Your task to perform on an android device: Search for Italian restaurants on Maps Image 0: 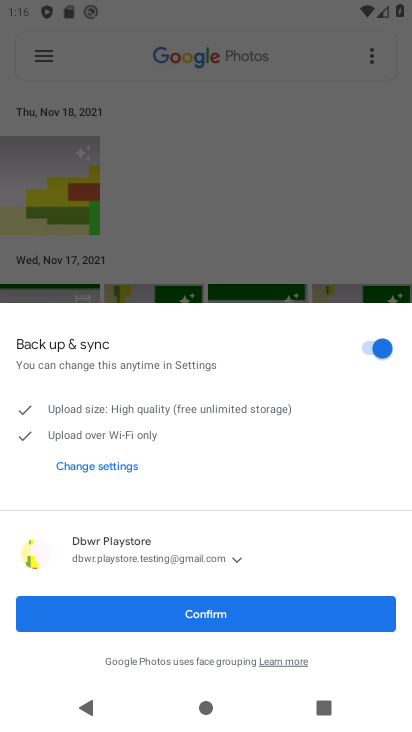
Step 0: press home button
Your task to perform on an android device: Search for Italian restaurants on Maps Image 1: 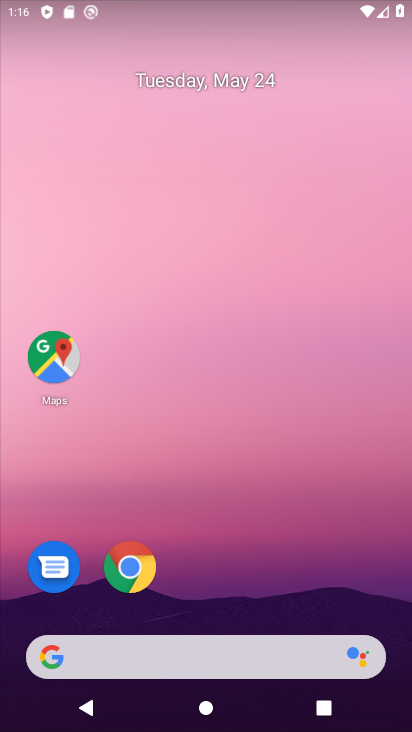
Step 1: click (63, 361)
Your task to perform on an android device: Search for Italian restaurants on Maps Image 2: 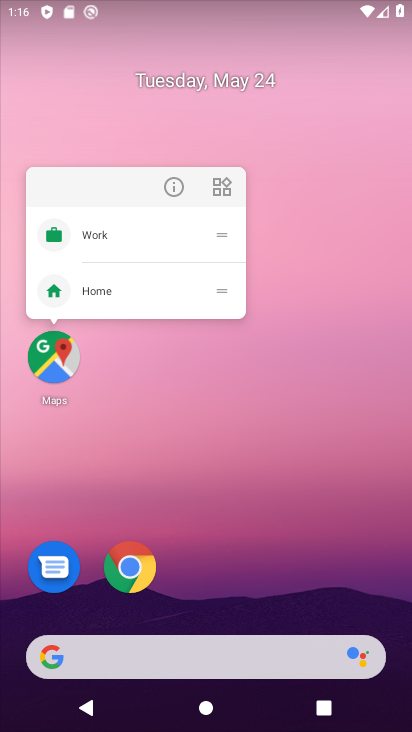
Step 2: click (43, 359)
Your task to perform on an android device: Search for Italian restaurants on Maps Image 3: 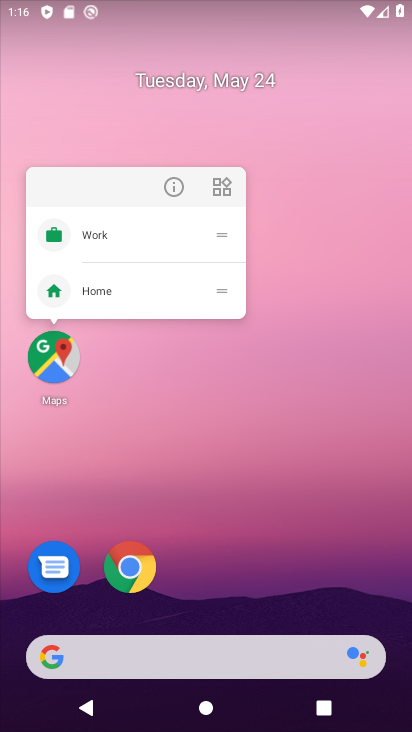
Step 3: click (44, 362)
Your task to perform on an android device: Search for Italian restaurants on Maps Image 4: 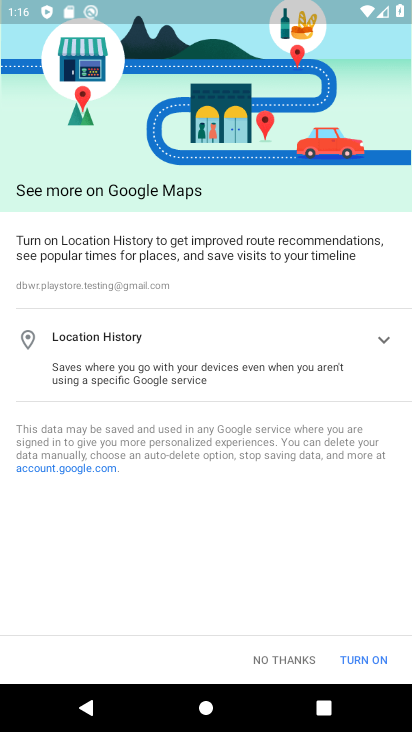
Step 4: click (286, 663)
Your task to perform on an android device: Search for Italian restaurants on Maps Image 5: 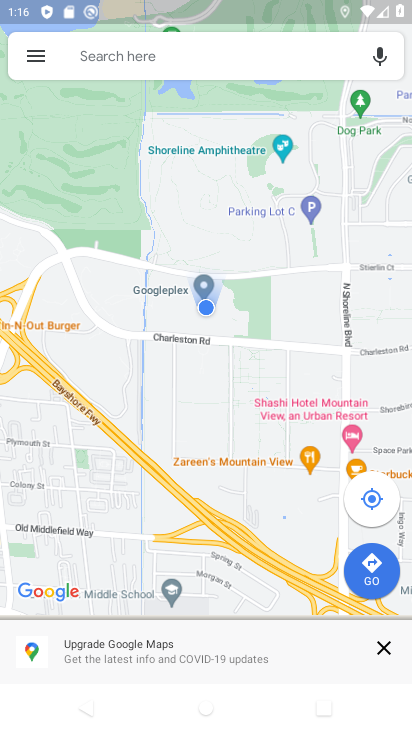
Step 5: click (210, 52)
Your task to perform on an android device: Search for Italian restaurants on Maps Image 6: 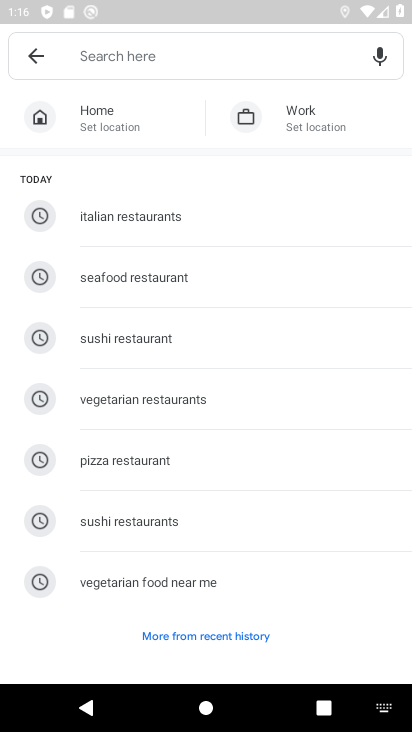
Step 6: type "Italian restaurants"
Your task to perform on an android device: Search for Italian restaurants on Maps Image 7: 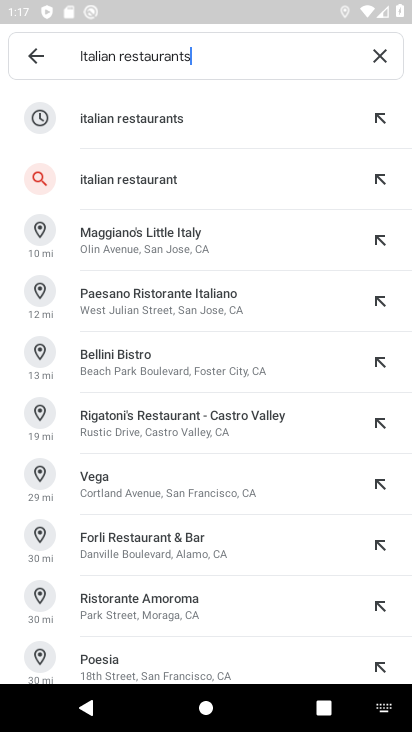
Step 7: click (278, 130)
Your task to perform on an android device: Search for Italian restaurants on Maps Image 8: 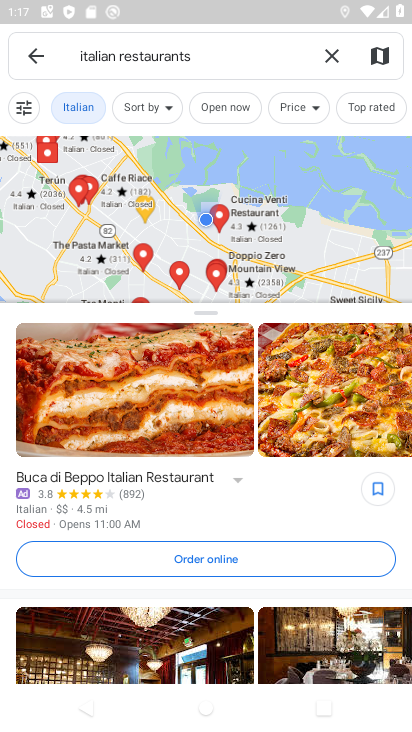
Step 8: task complete